Your task to perform on an android device: toggle location history Image 0: 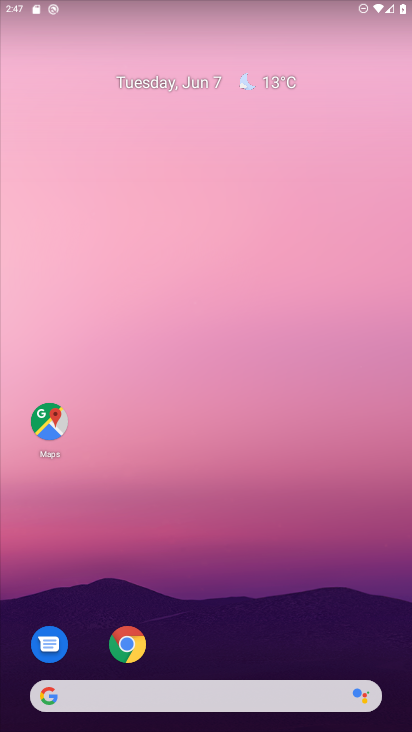
Step 0: press home button
Your task to perform on an android device: toggle location history Image 1: 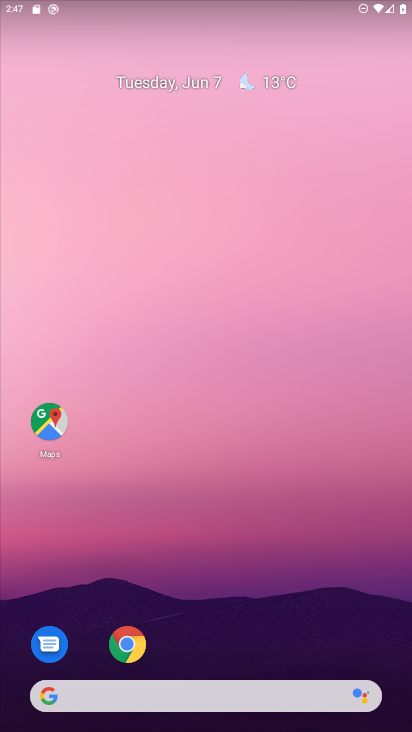
Step 1: drag from (200, 662) to (199, 77)
Your task to perform on an android device: toggle location history Image 2: 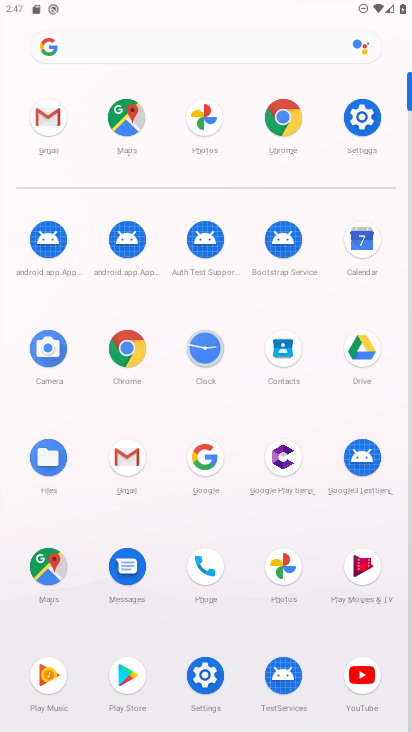
Step 2: click (361, 110)
Your task to perform on an android device: toggle location history Image 3: 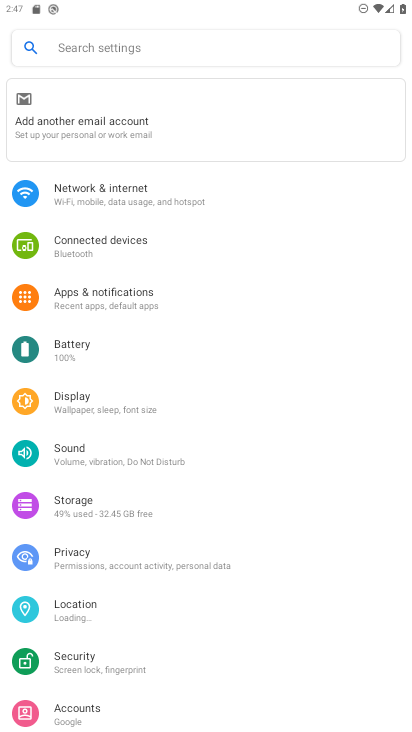
Step 3: click (103, 609)
Your task to perform on an android device: toggle location history Image 4: 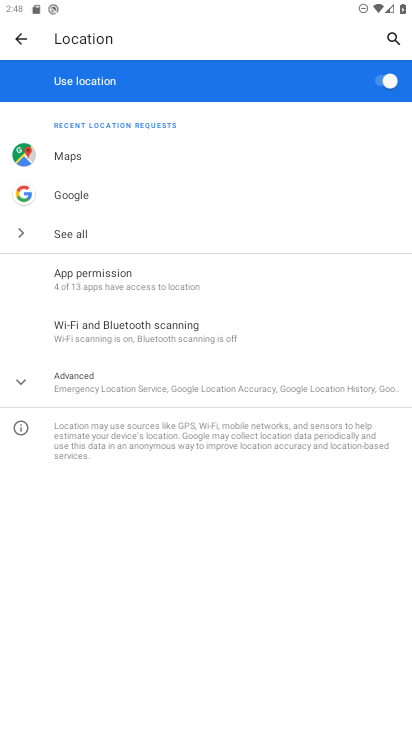
Step 4: click (33, 379)
Your task to perform on an android device: toggle location history Image 5: 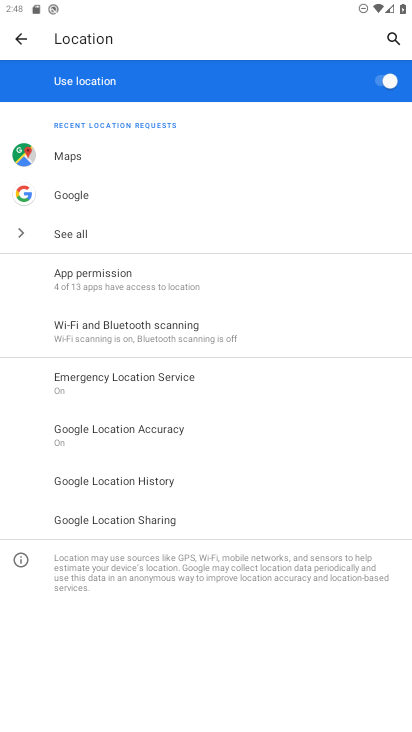
Step 5: click (185, 472)
Your task to perform on an android device: toggle location history Image 6: 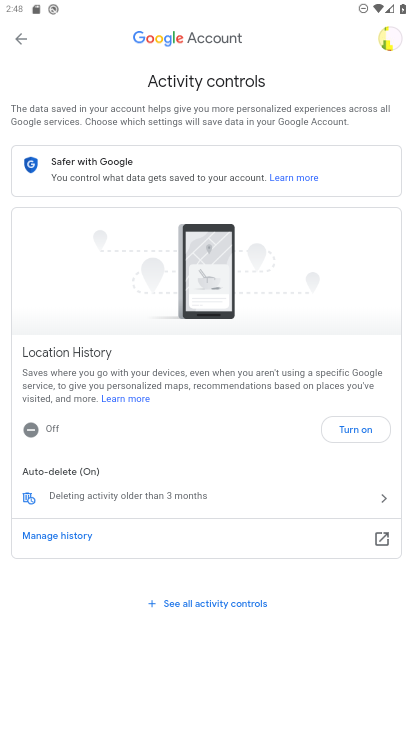
Step 6: click (362, 423)
Your task to perform on an android device: toggle location history Image 7: 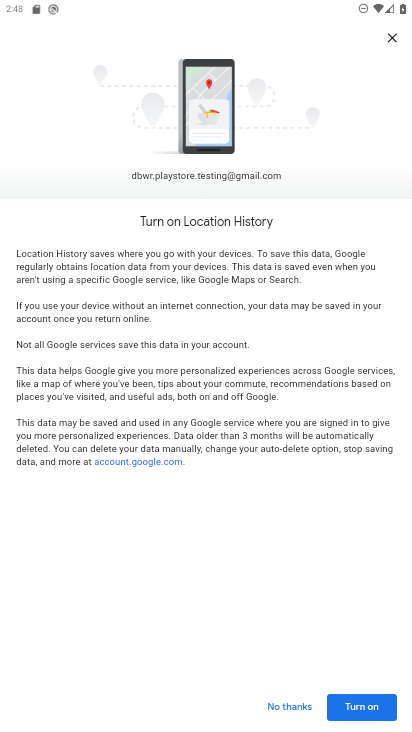
Step 7: click (362, 702)
Your task to perform on an android device: toggle location history Image 8: 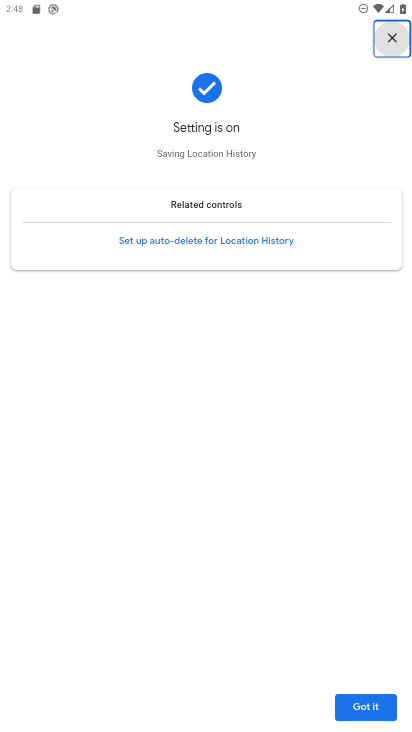
Step 8: click (373, 709)
Your task to perform on an android device: toggle location history Image 9: 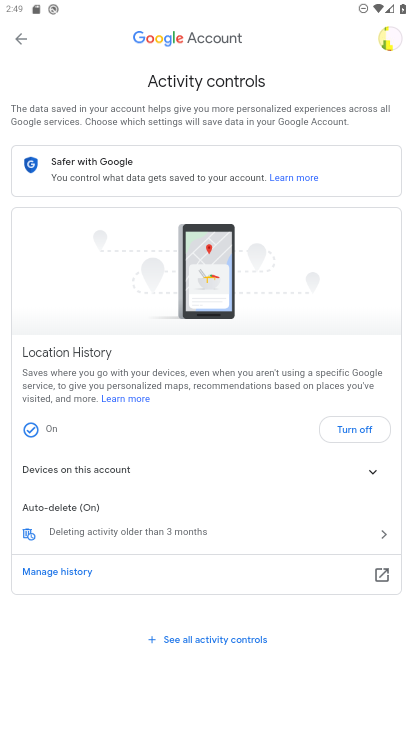
Step 9: task complete